Your task to perform on an android device: turn pop-ups on in chrome Image 0: 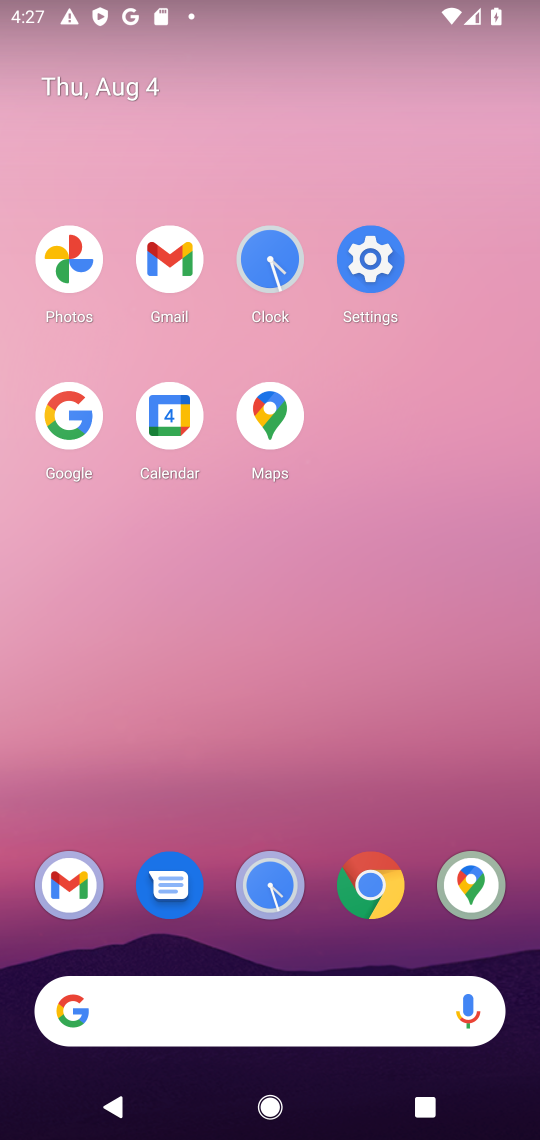
Step 0: click (353, 876)
Your task to perform on an android device: turn pop-ups on in chrome Image 1: 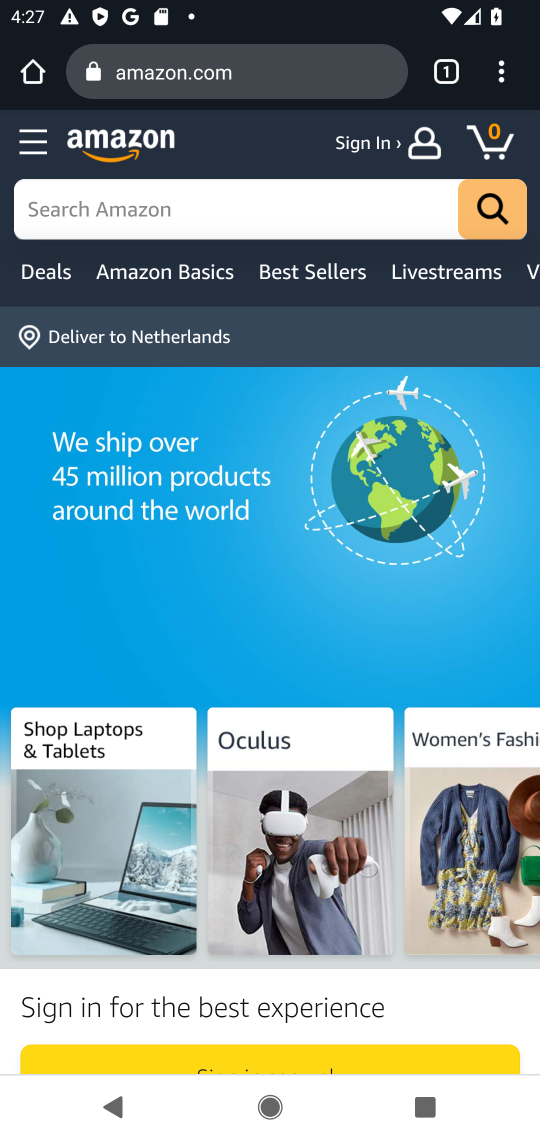
Step 1: click (500, 73)
Your task to perform on an android device: turn pop-ups on in chrome Image 2: 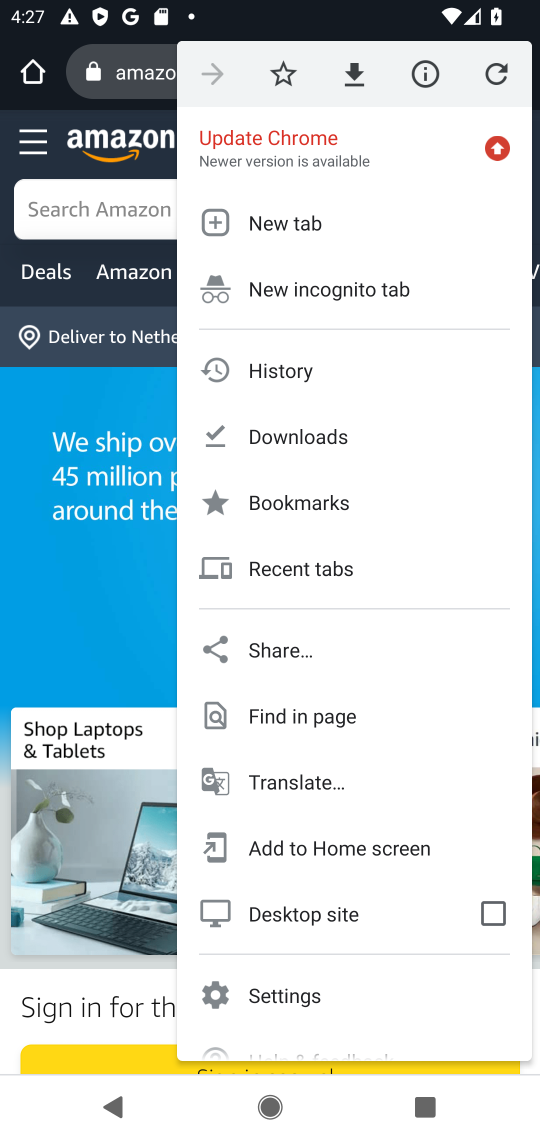
Step 2: click (309, 1000)
Your task to perform on an android device: turn pop-ups on in chrome Image 3: 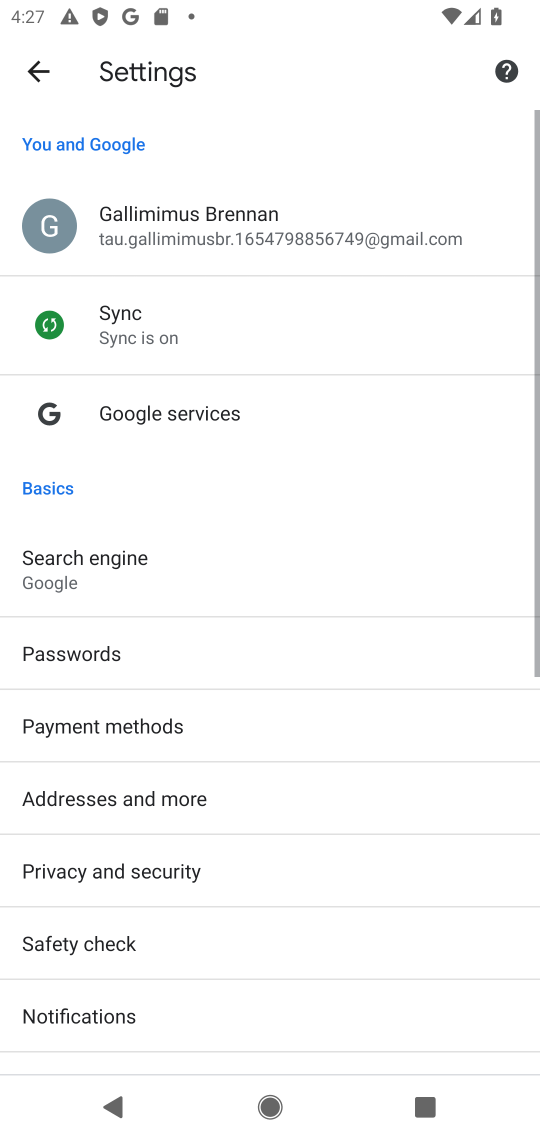
Step 3: drag from (241, 934) to (266, 395)
Your task to perform on an android device: turn pop-ups on in chrome Image 4: 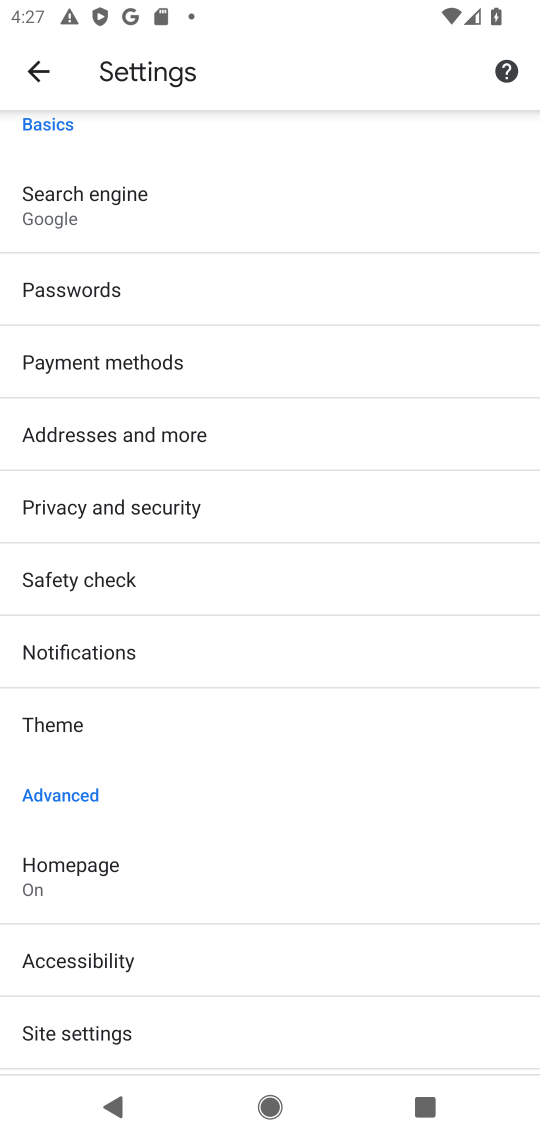
Step 4: drag from (173, 829) to (246, 326)
Your task to perform on an android device: turn pop-ups on in chrome Image 5: 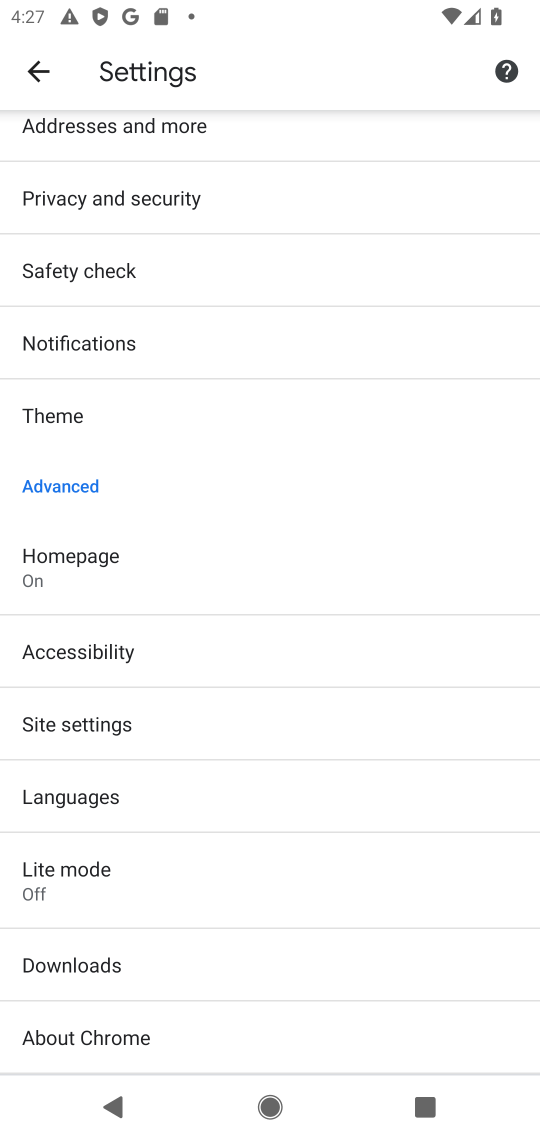
Step 5: click (173, 722)
Your task to perform on an android device: turn pop-ups on in chrome Image 6: 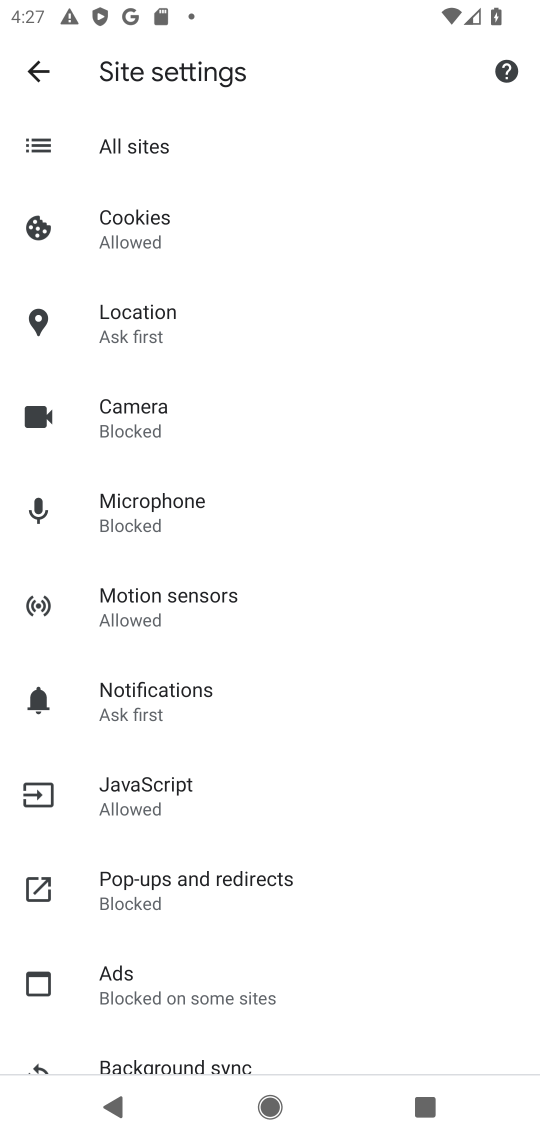
Step 6: click (121, 905)
Your task to perform on an android device: turn pop-ups on in chrome Image 7: 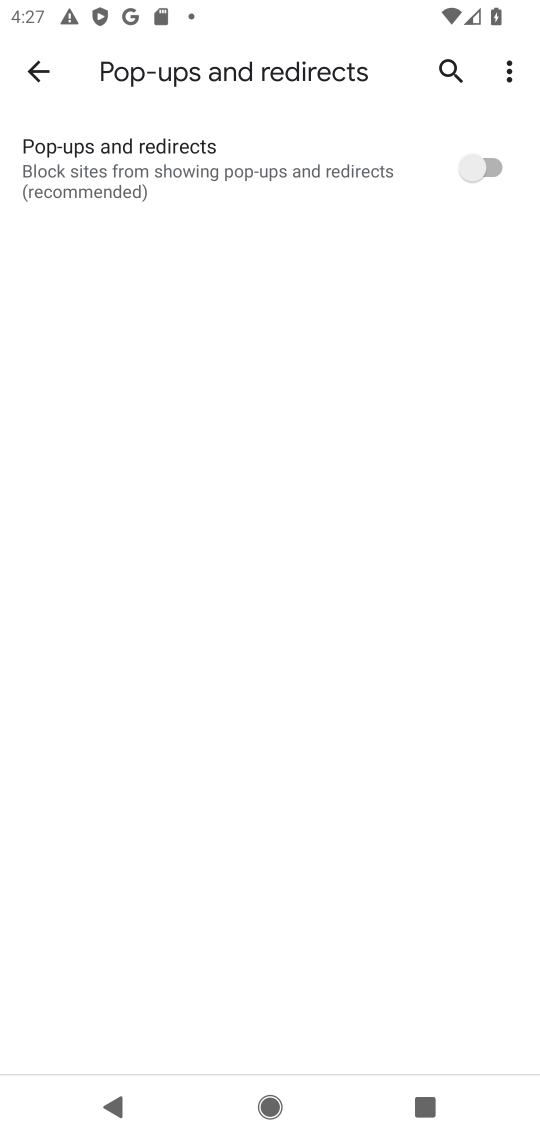
Step 7: click (457, 173)
Your task to perform on an android device: turn pop-ups on in chrome Image 8: 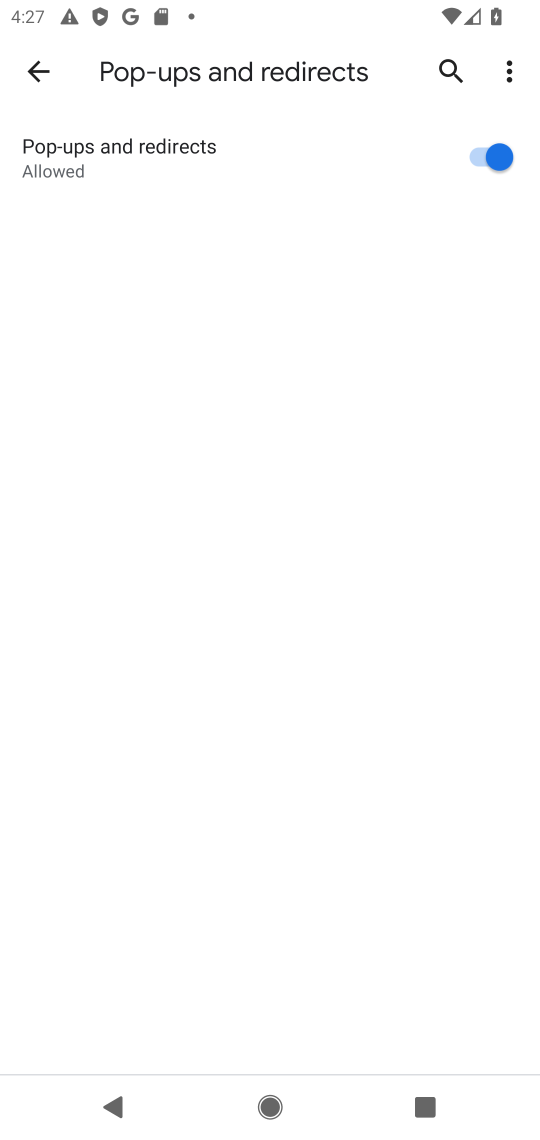
Step 8: task complete